Your task to perform on an android device: Search for "usb-c" on ebay.com, select the first entry, and add it to the cart. Image 0: 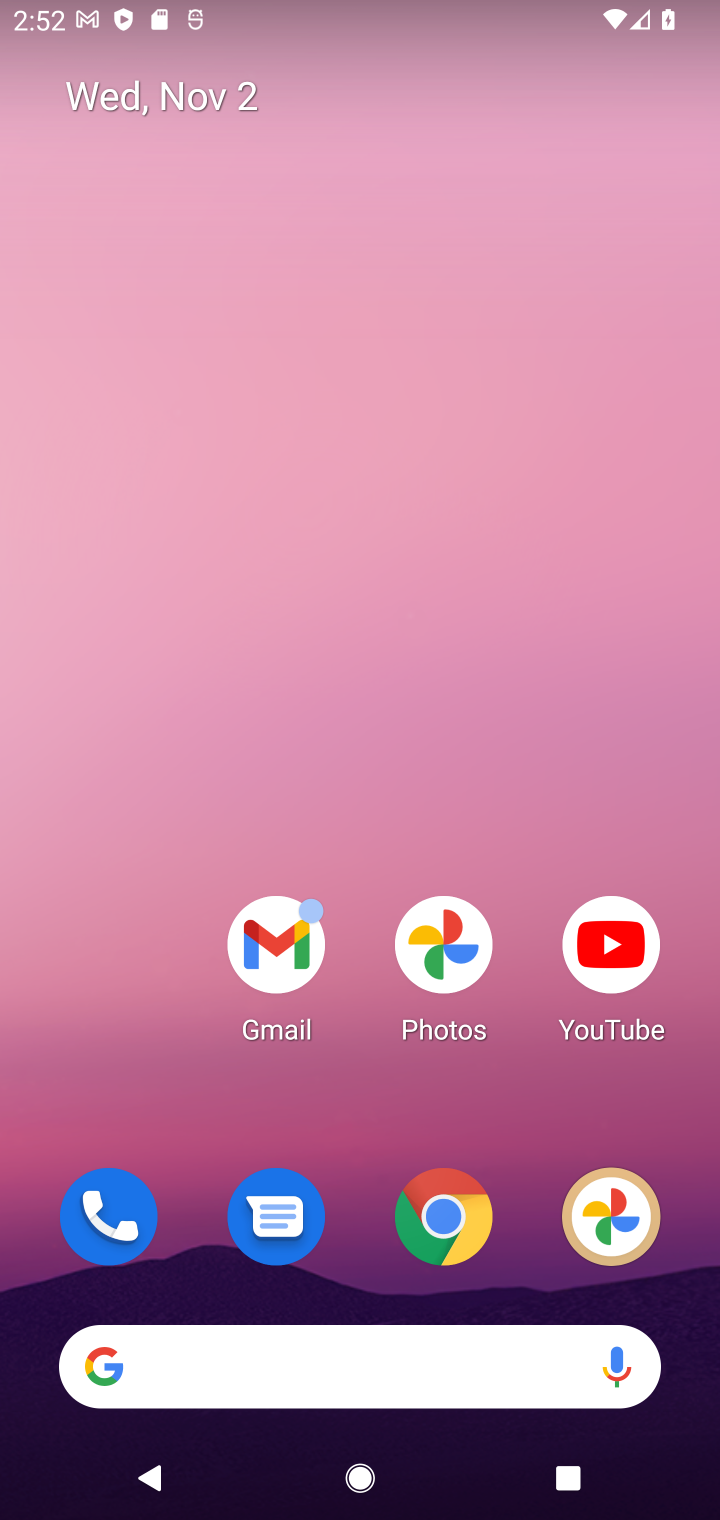
Step 0: click (431, 1206)
Your task to perform on an android device: Search for "usb-c" on ebay.com, select the first entry, and add it to the cart. Image 1: 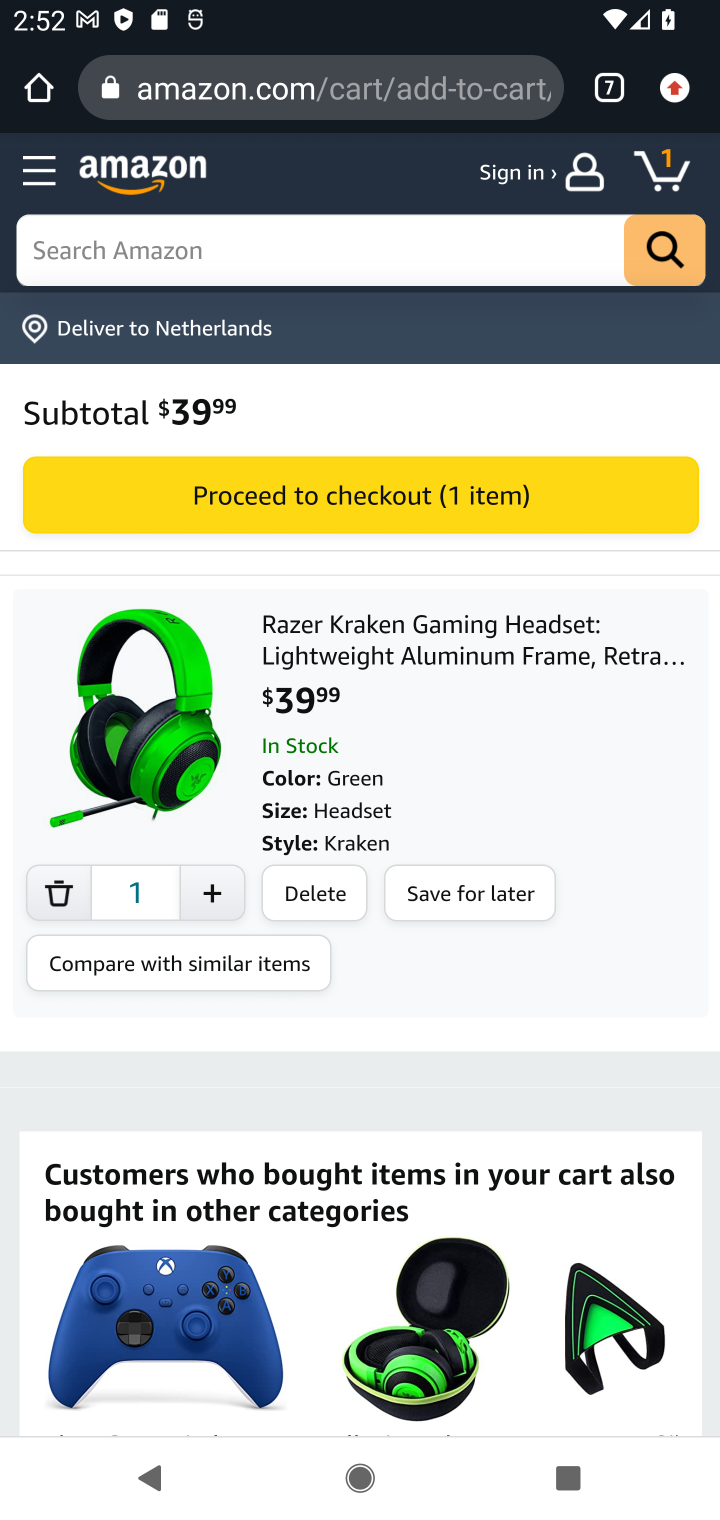
Step 1: click (609, 100)
Your task to perform on an android device: Search for "usb-c" on ebay.com, select the first entry, and add it to the cart. Image 2: 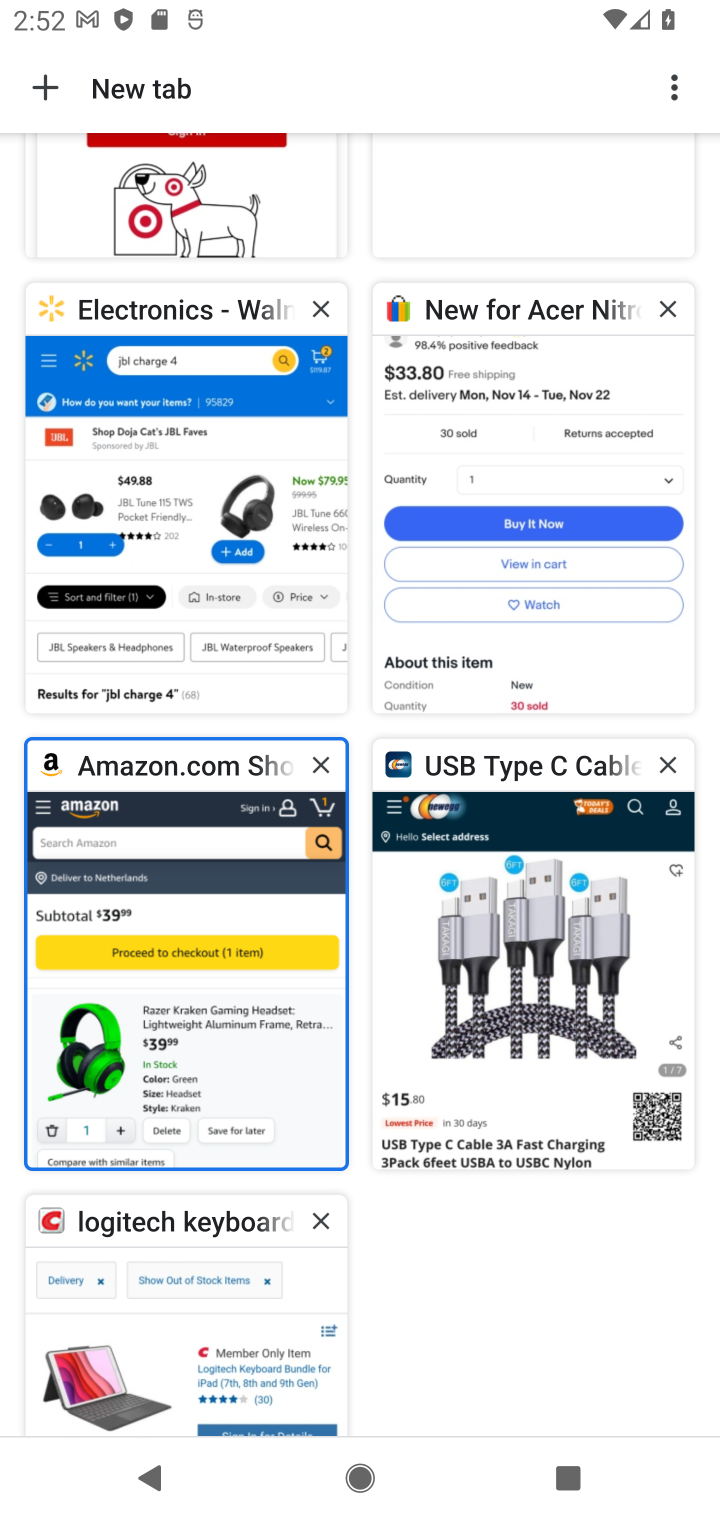
Step 2: click (438, 594)
Your task to perform on an android device: Search for "usb-c" on ebay.com, select the first entry, and add it to the cart. Image 3: 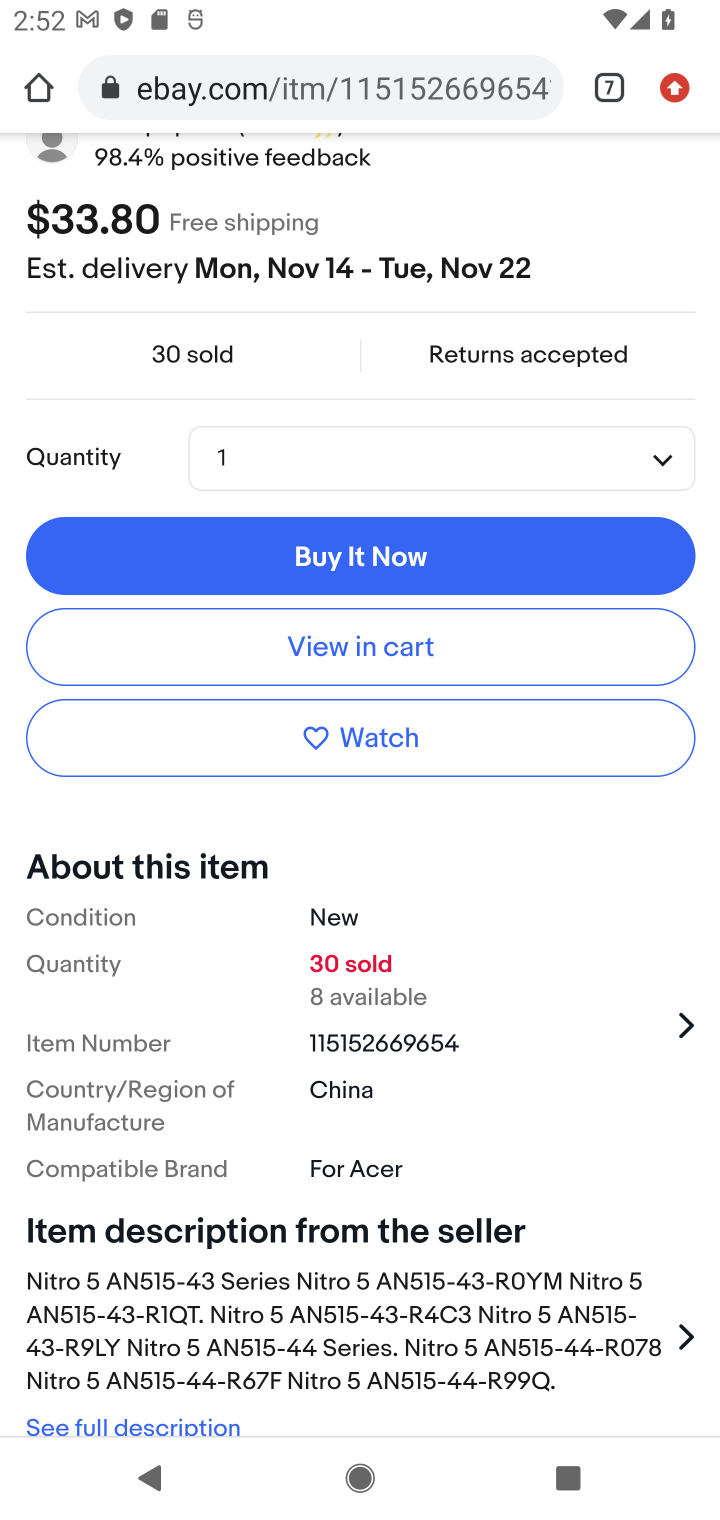
Step 3: drag from (444, 197) to (144, 1201)
Your task to perform on an android device: Search for "usb-c" on ebay.com, select the first entry, and add it to the cart. Image 4: 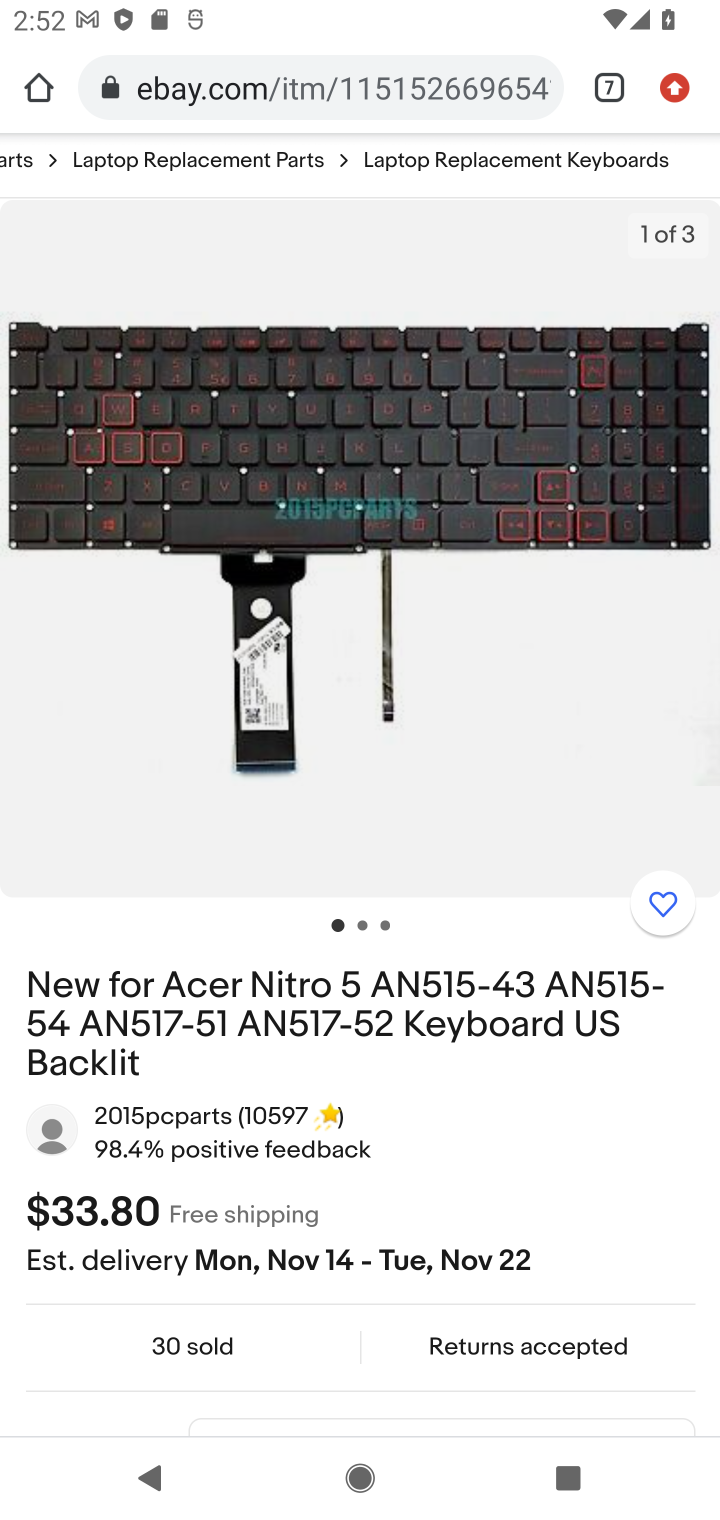
Step 4: drag from (343, 339) to (283, 881)
Your task to perform on an android device: Search for "usb-c" on ebay.com, select the first entry, and add it to the cart. Image 5: 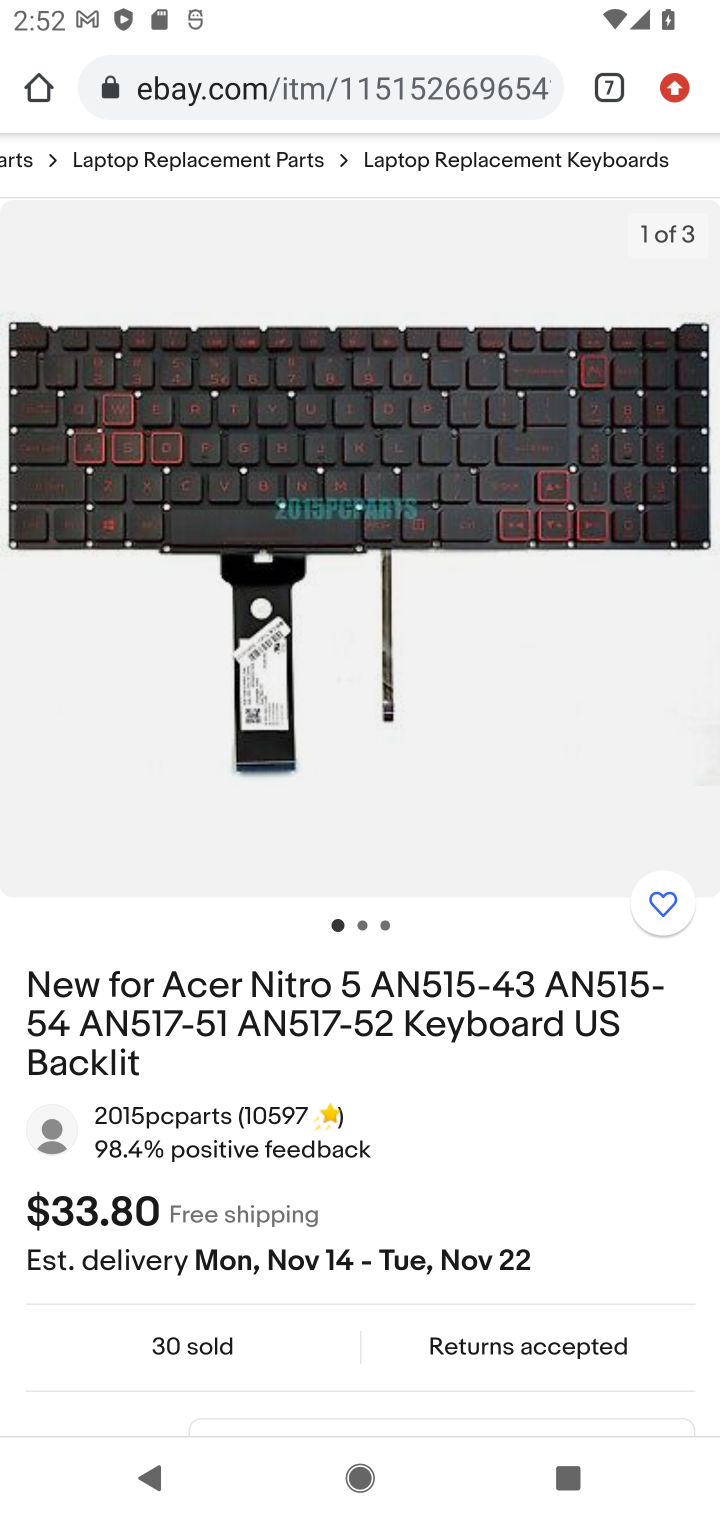
Step 5: drag from (366, 162) to (449, 877)
Your task to perform on an android device: Search for "usb-c" on ebay.com, select the first entry, and add it to the cart. Image 6: 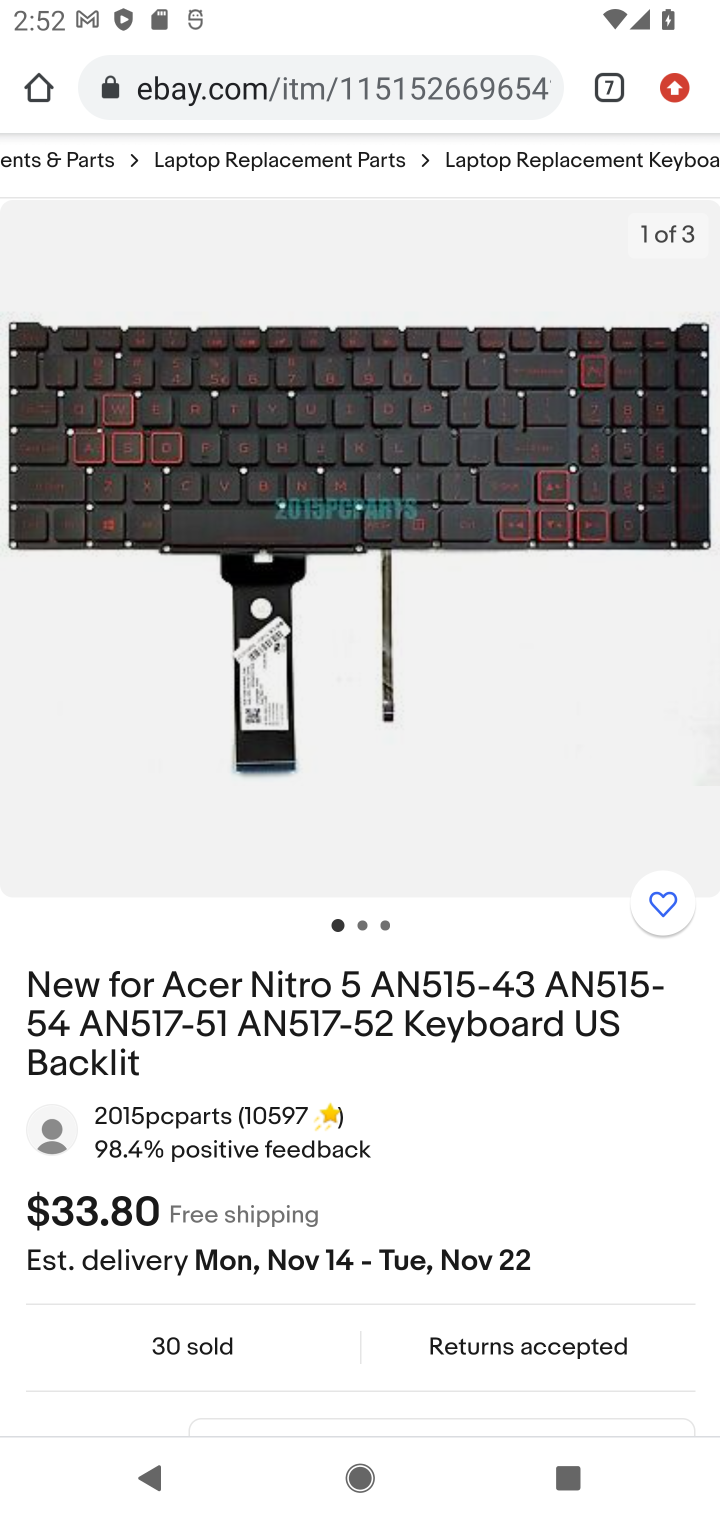
Step 6: drag from (341, 240) to (395, 1044)
Your task to perform on an android device: Search for "usb-c" on ebay.com, select the first entry, and add it to the cart. Image 7: 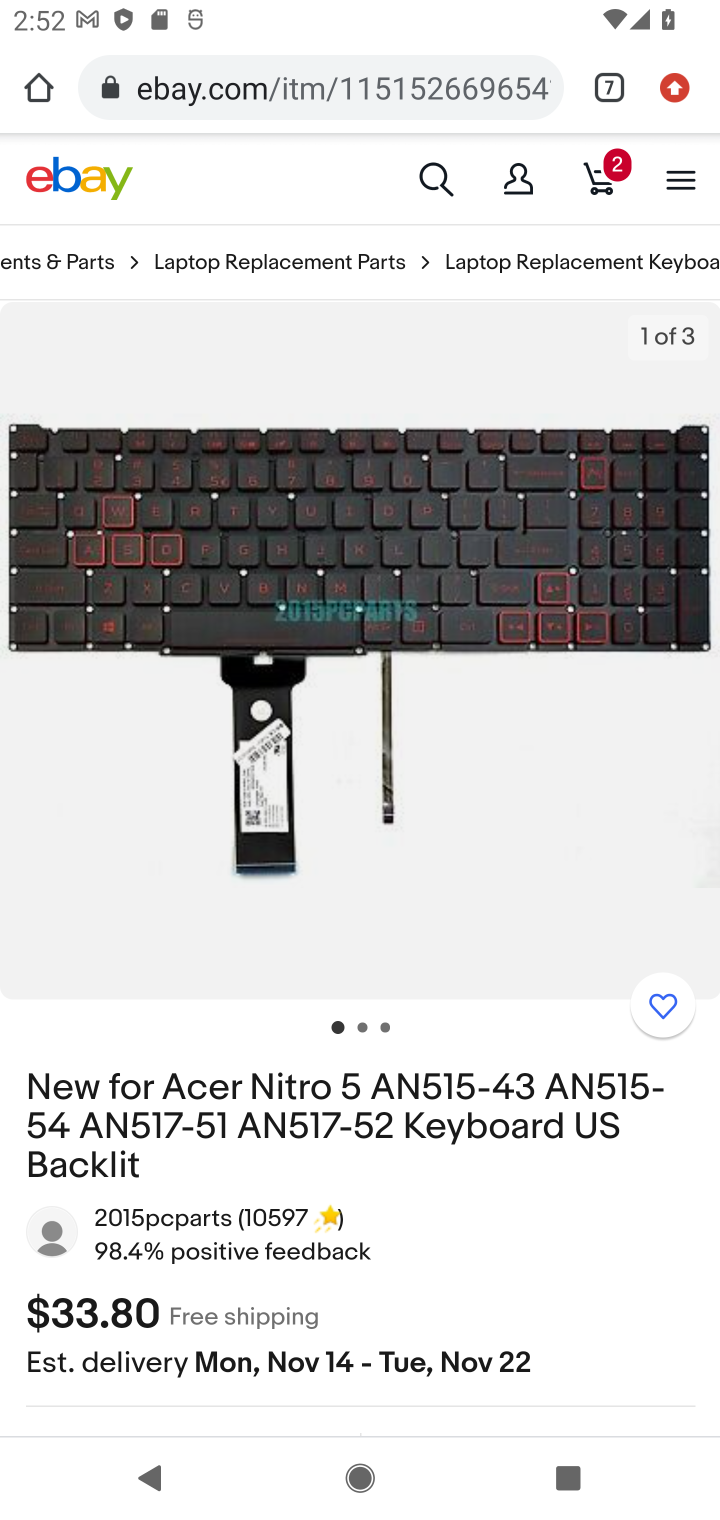
Step 7: click (441, 166)
Your task to perform on an android device: Search for "usb-c" on ebay.com, select the first entry, and add it to the cart. Image 8: 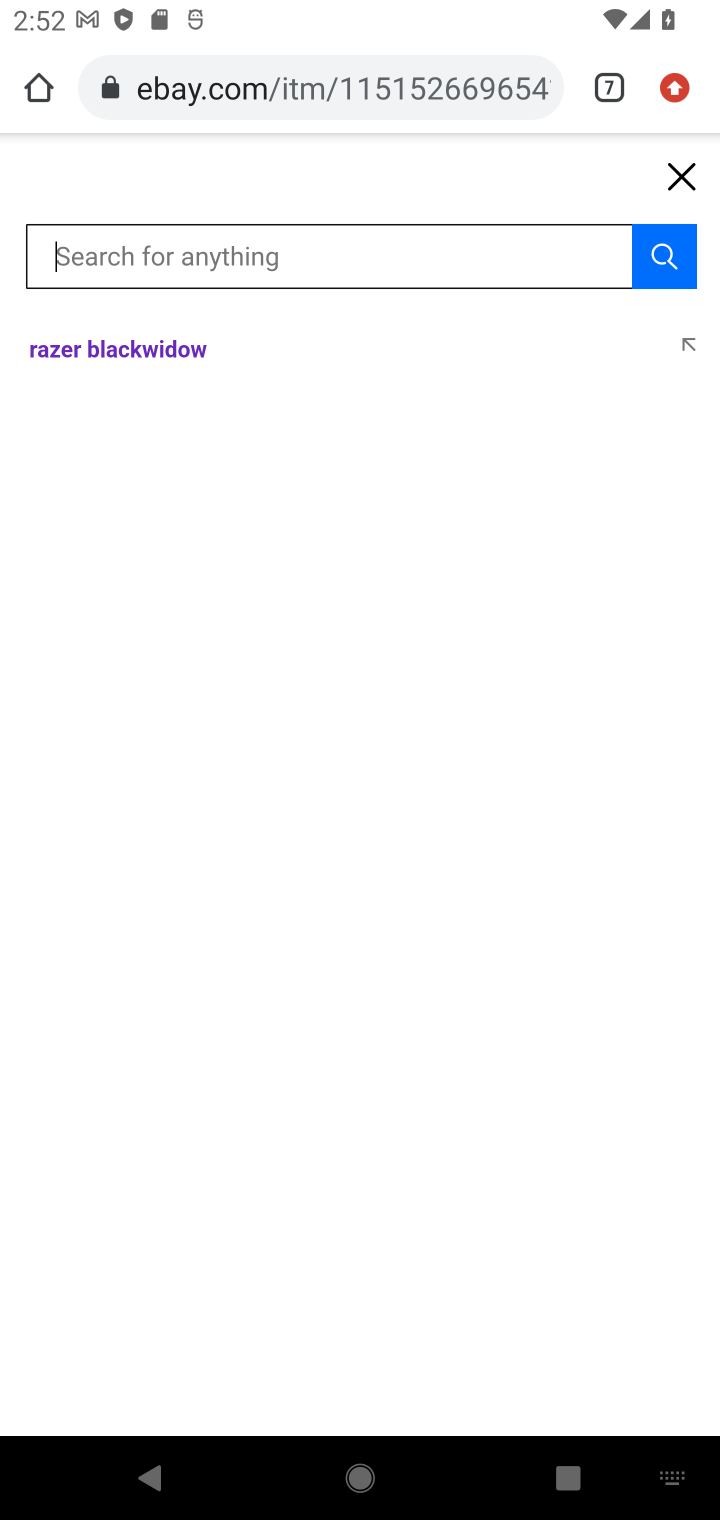
Step 8: type "usb-c"
Your task to perform on an android device: Search for "usb-c" on ebay.com, select the first entry, and add it to the cart. Image 9: 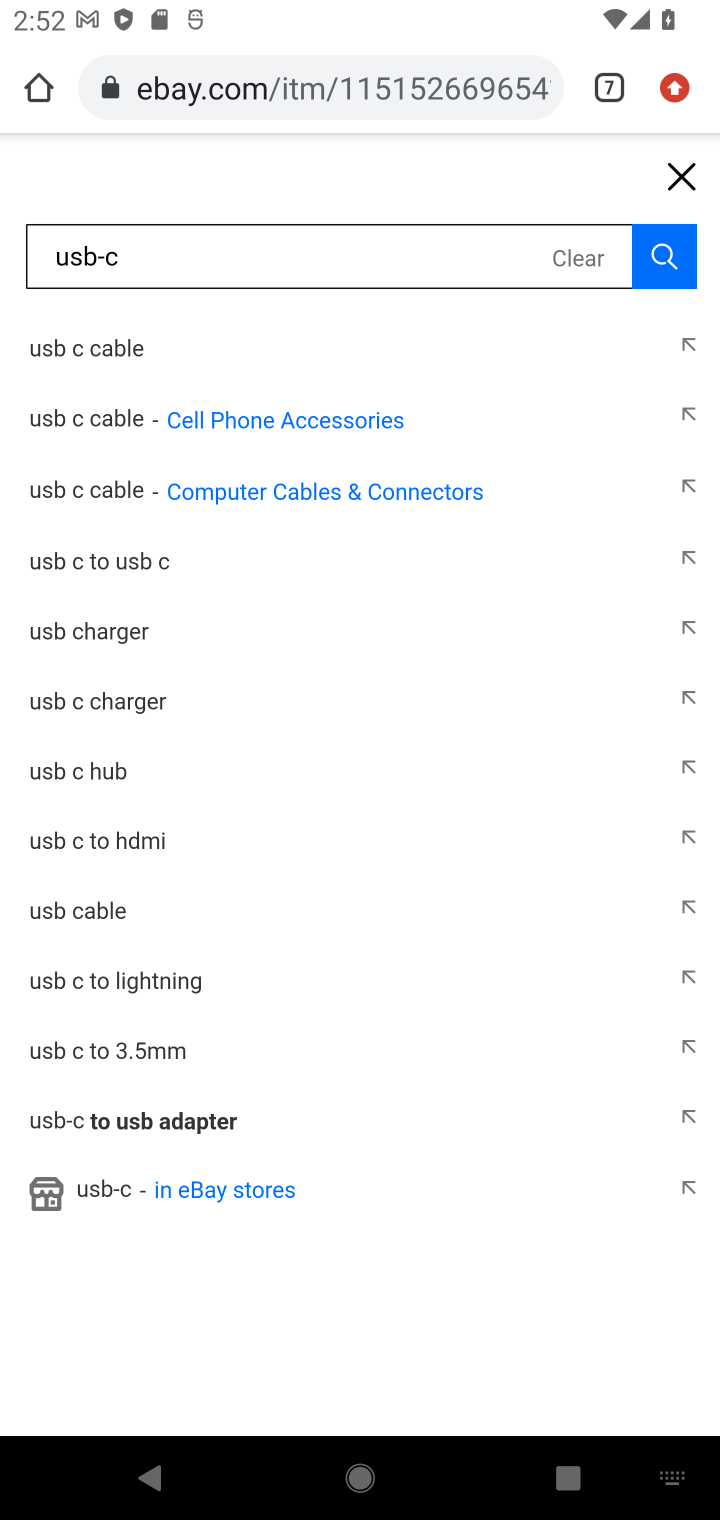
Step 9: click (66, 478)
Your task to perform on an android device: Search for "usb-c" on ebay.com, select the first entry, and add it to the cart. Image 10: 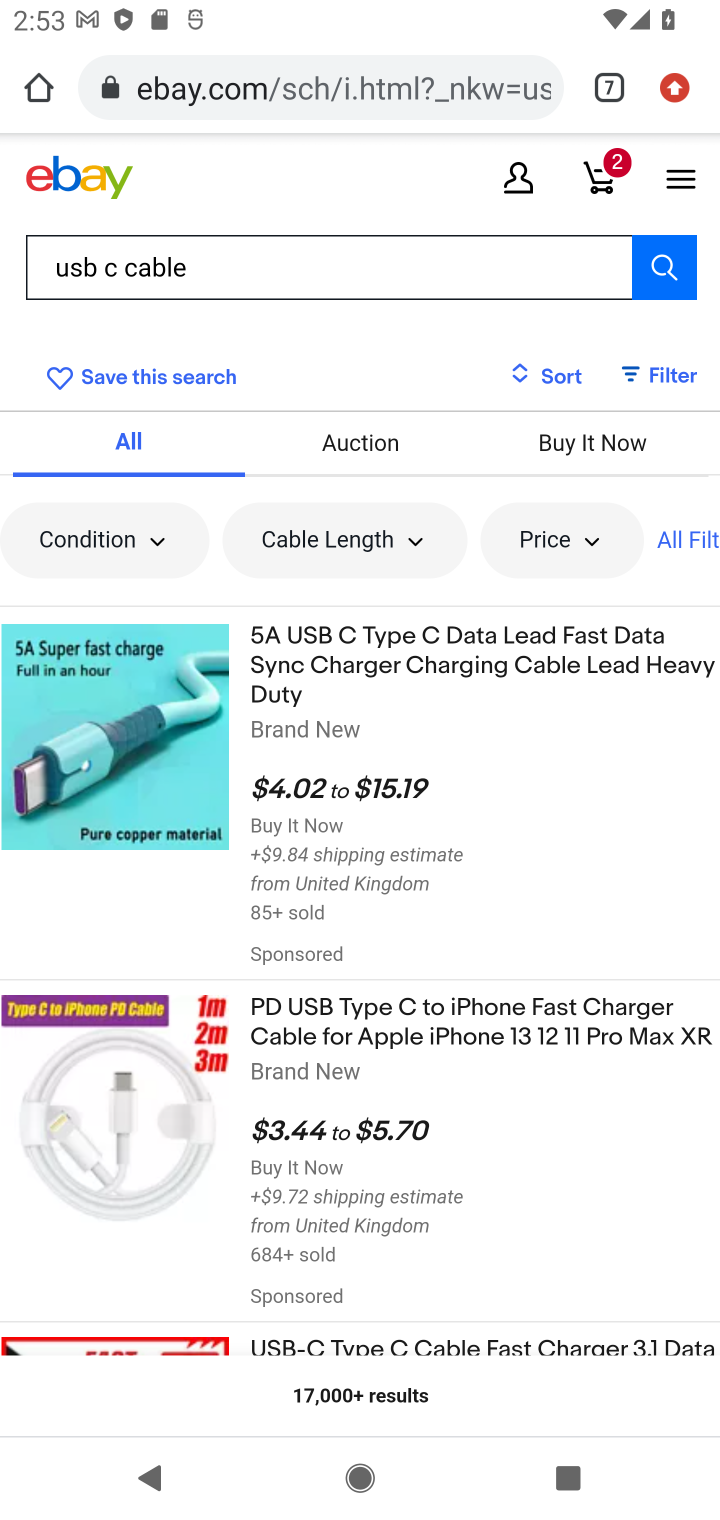
Step 10: click (367, 664)
Your task to perform on an android device: Search for "usb-c" on ebay.com, select the first entry, and add it to the cart. Image 11: 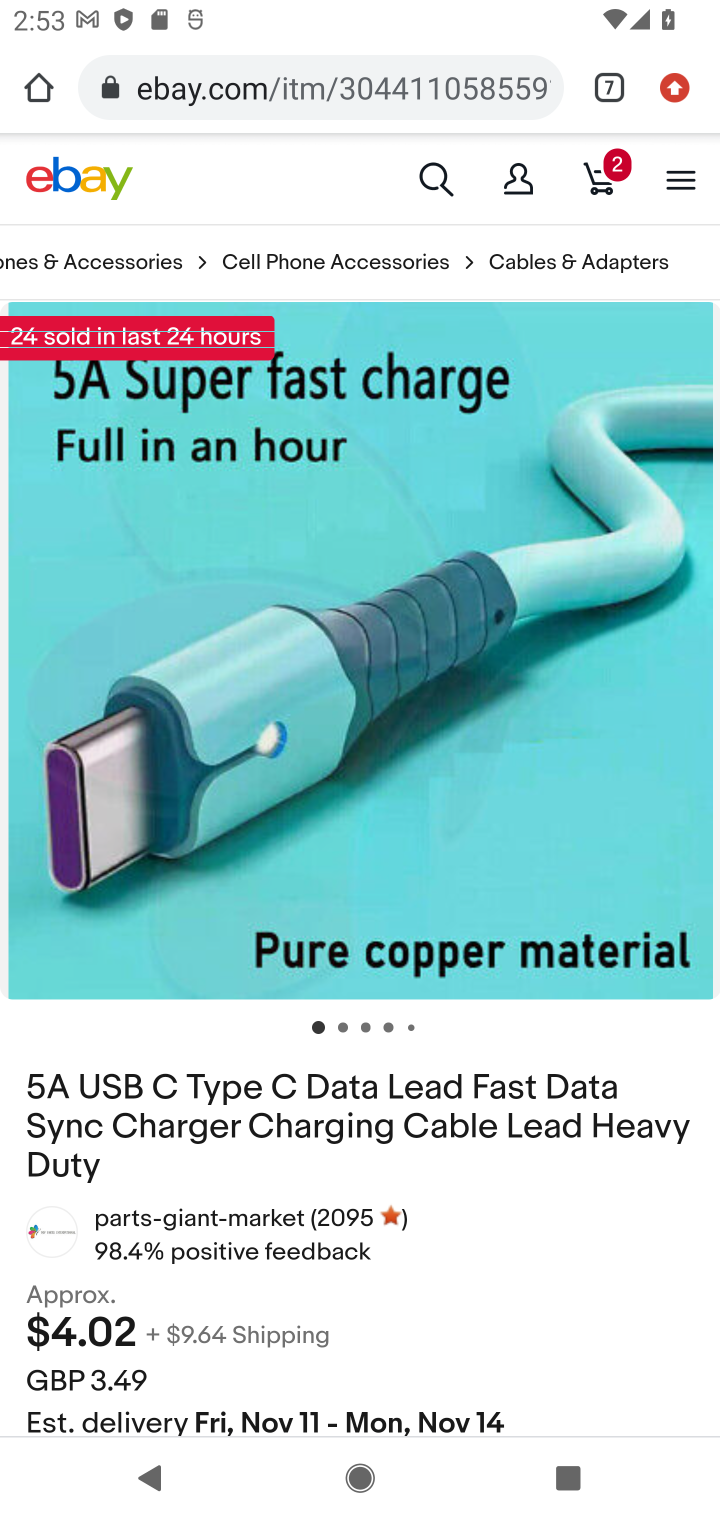
Step 11: drag from (381, 171) to (406, 39)
Your task to perform on an android device: Search for "usb-c" on ebay.com, select the first entry, and add it to the cart. Image 12: 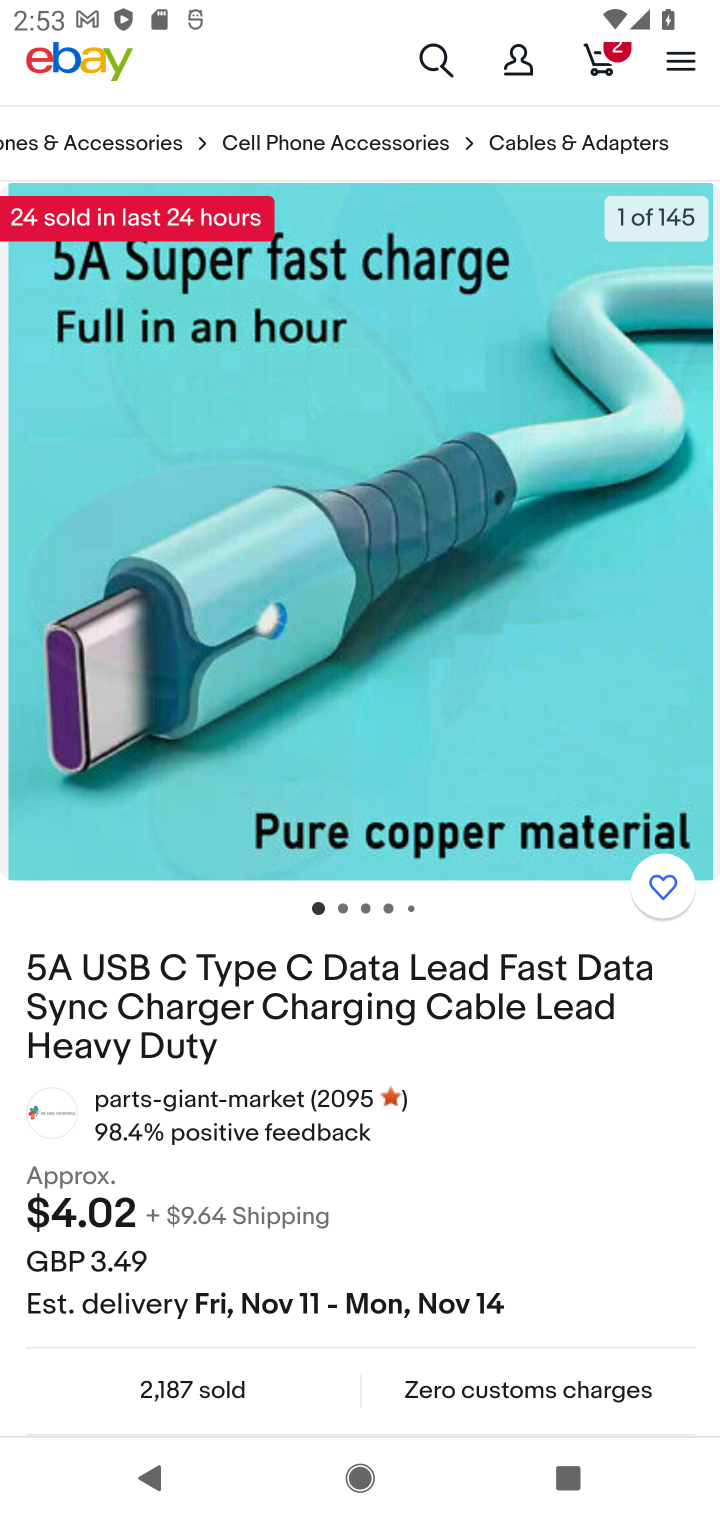
Step 12: drag from (535, 1135) to (398, 103)
Your task to perform on an android device: Search for "usb-c" on ebay.com, select the first entry, and add it to the cart. Image 13: 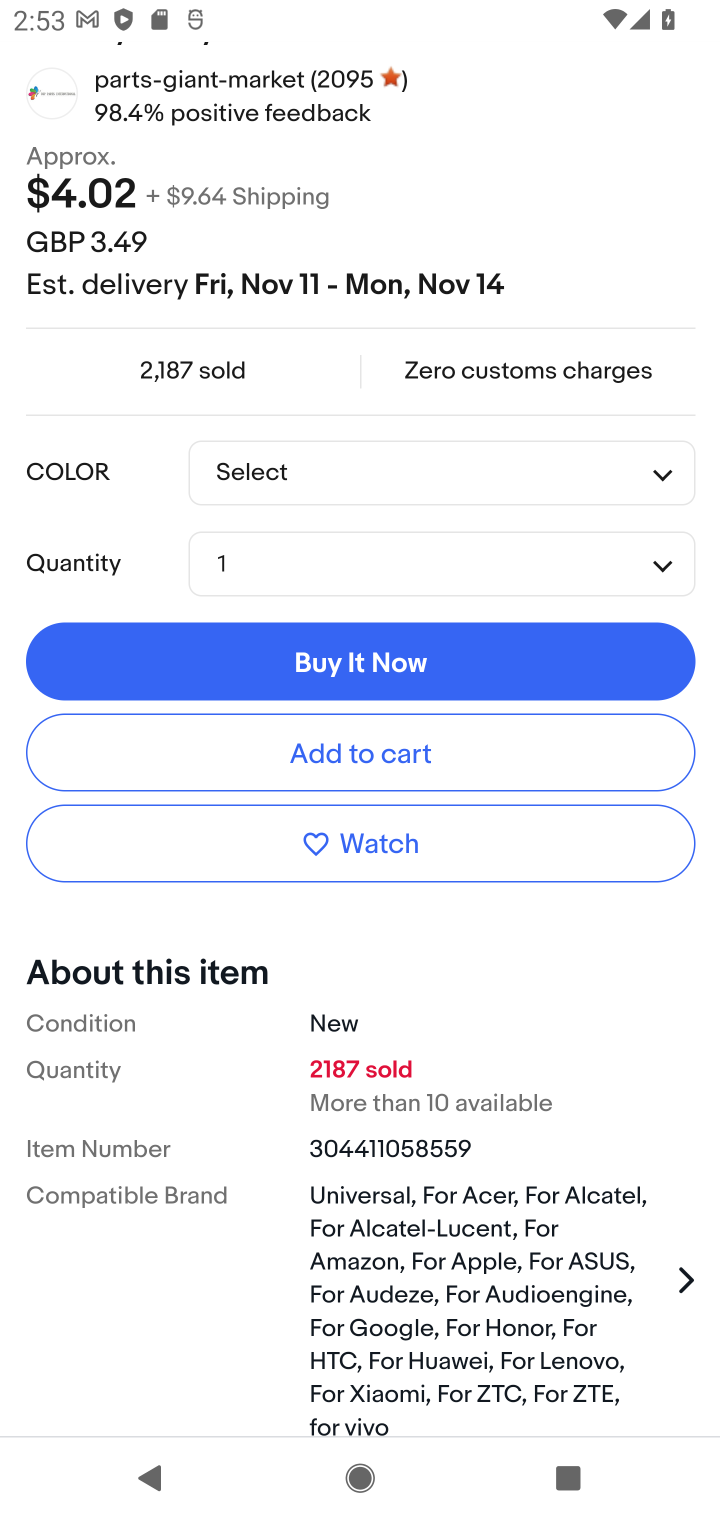
Step 13: click (366, 740)
Your task to perform on an android device: Search for "usb-c" on ebay.com, select the first entry, and add it to the cart. Image 14: 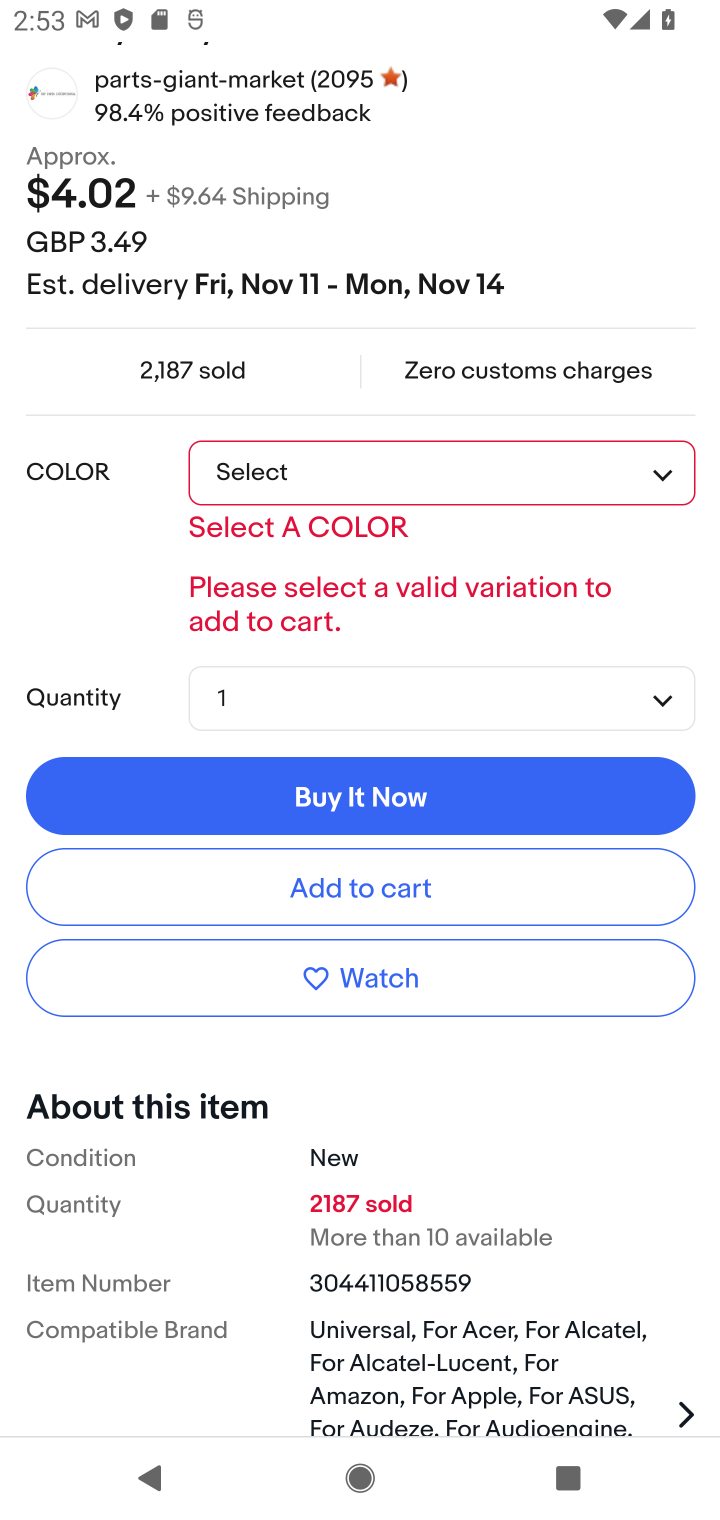
Step 14: click (674, 458)
Your task to perform on an android device: Search for "usb-c" on ebay.com, select the first entry, and add it to the cart. Image 15: 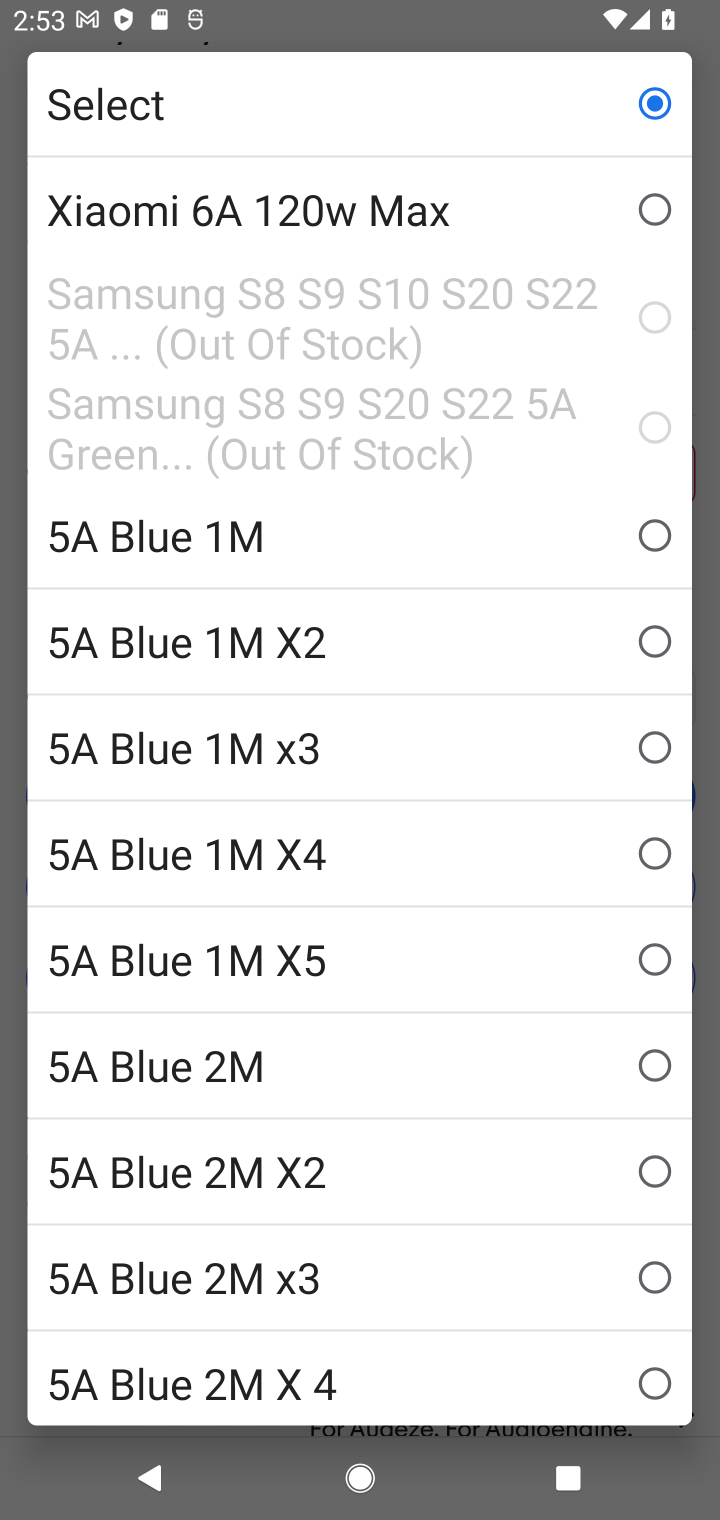
Step 15: click (644, 212)
Your task to perform on an android device: Search for "usb-c" on ebay.com, select the first entry, and add it to the cart. Image 16: 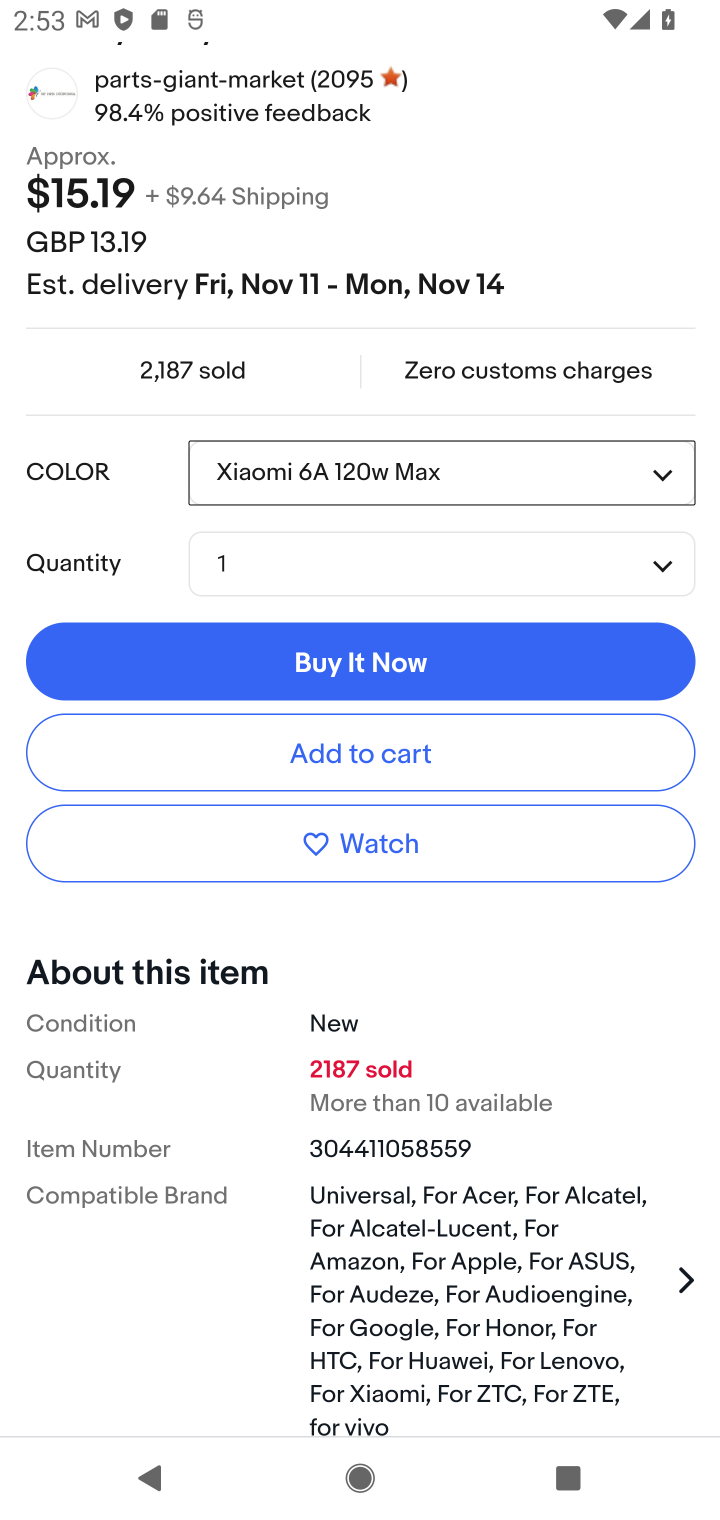
Step 16: click (437, 774)
Your task to perform on an android device: Search for "usb-c" on ebay.com, select the first entry, and add it to the cart. Image 17: 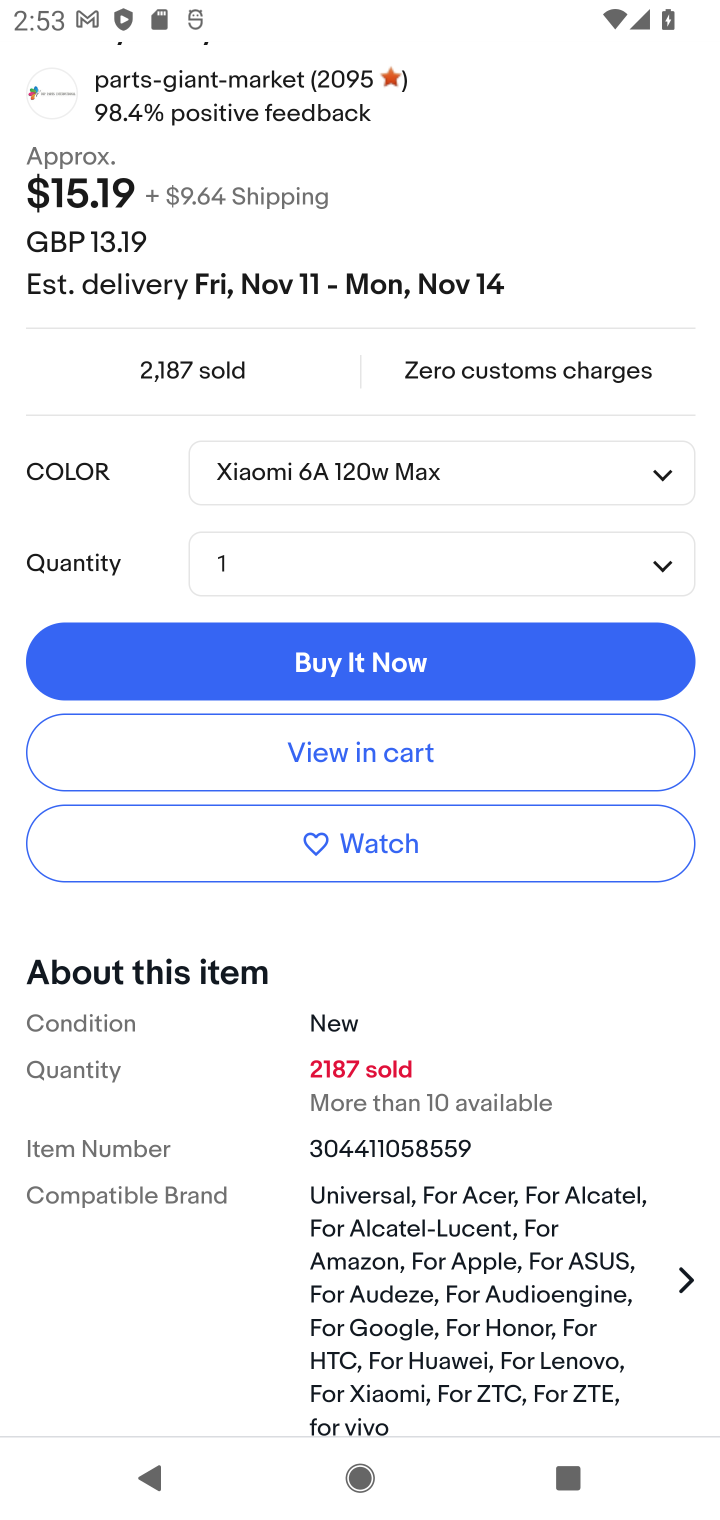
Step 17: task complete